Your task to perform on an android device: Go to privacy settings Image 0: 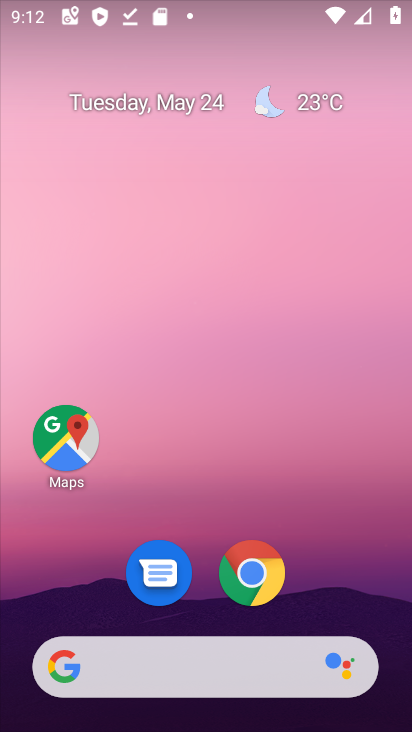
Step 0: drag from (290, 586) to (240, 190)
Your task to perform on an android device: Go to privacy settings Image 1: 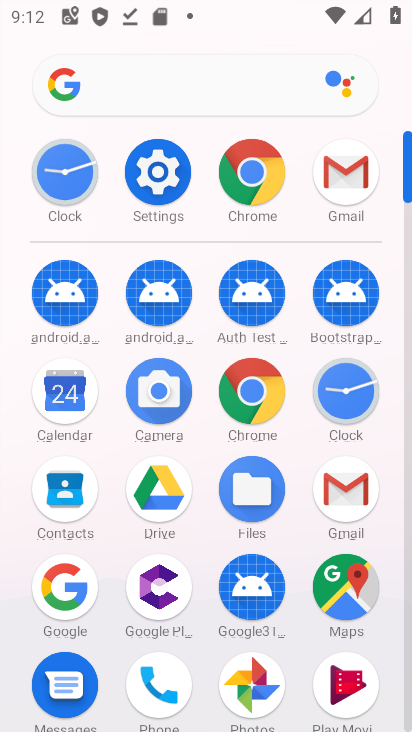
Step 1: click (154, 174)
Your task to perform on an android device: Go to privacy settings Image 2: 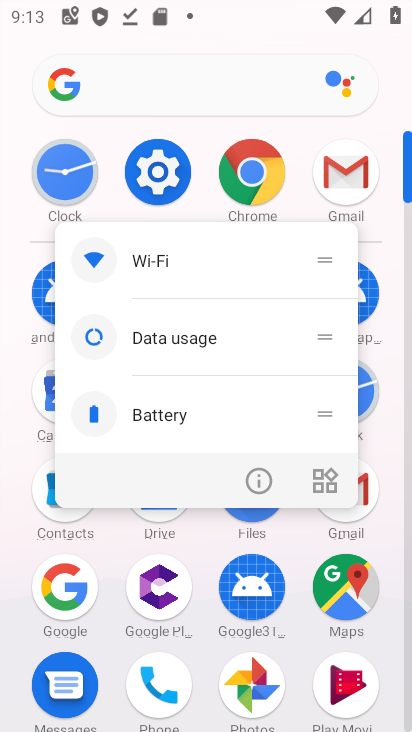
Step 2: click (172, 172)
Your task to perform on an android device: Go to privacy settings Image 3: 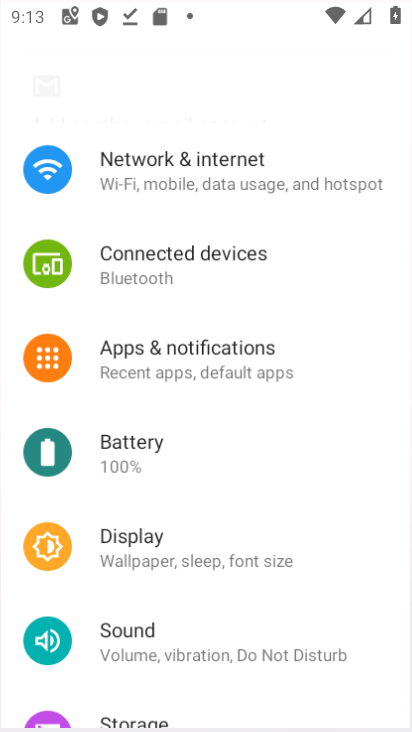
Step 3: click (170, 172)
Your task to perform on an android device: Go to privacy settings Image 4: 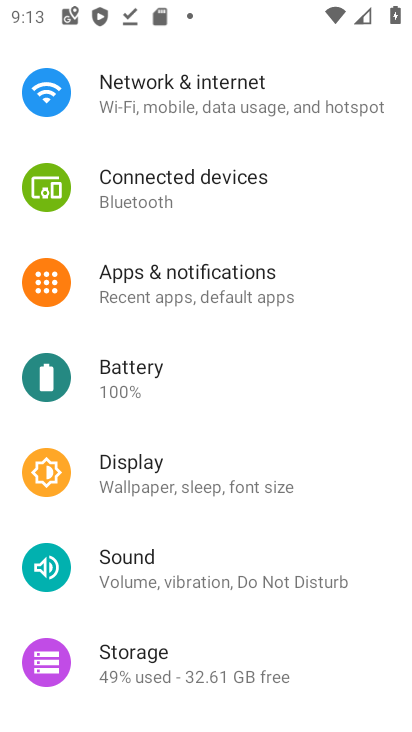
Step 4: click (170, 172)
Your task to perform on an android device: Go to privacy settings Image 5: 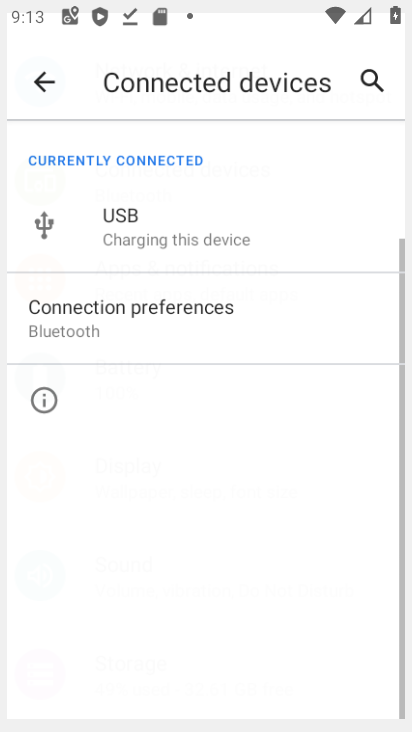
Step 5: click (170, 172)
Your task to perform on an android device: Go to privacy settings Image 6: 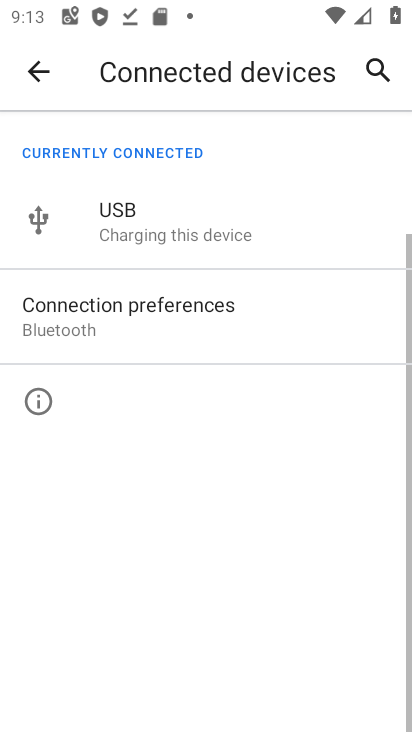
Step 6: click (20, 80)
Your task to perform on an android device: Go to privacy settings Image 7: 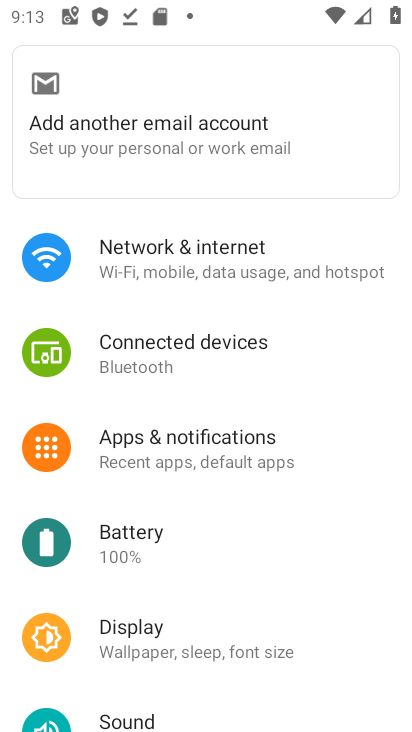
Step 7: drag from (168, 590) to (186, 388)
Your task to perform on an android device: Go to privacy settings Image 8: 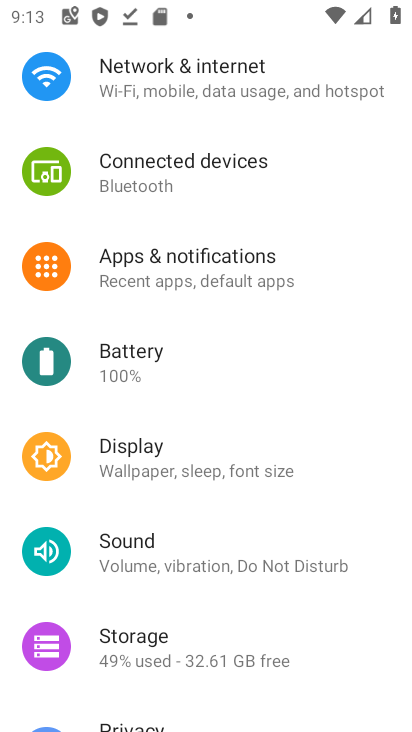
Step 8: drag from (237, 447) to (228, 110)
Your task to perform on an android device: Go to privacy settings Image 9: 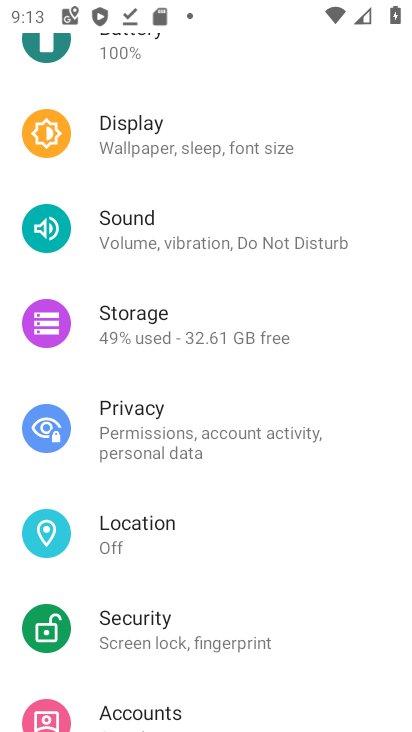
Step 9: drag from (161, 581) to (147, 172)
Your task to perform on an android device: Go to privacy settings Image 10: 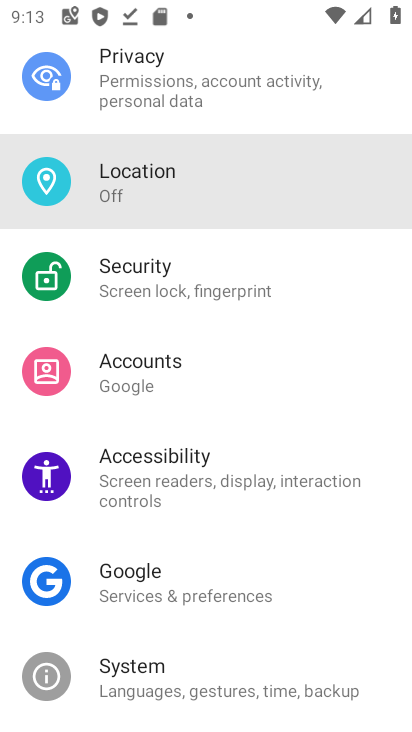
Step 10: drag from (261, 434) to (299, 0)
Your task to perform on an android device: Go to privacy settings Image 11: 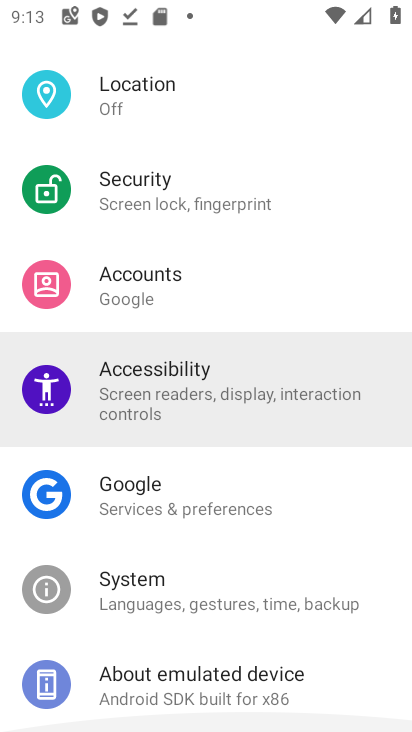
Step 11: drag from (349, 480) to (335, 268)
Your task to perform on an android device: Go to privacy settings Image 12: 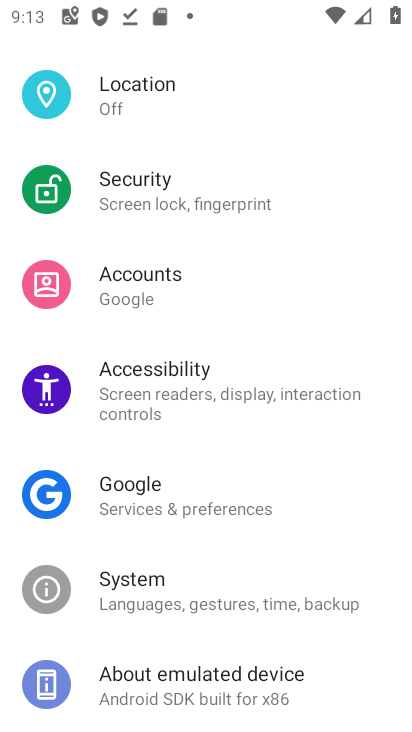
Step 12: drag from (216, 351) to (216, 237)
Your task to perform on an android device: Go to privacy settings Image 13: 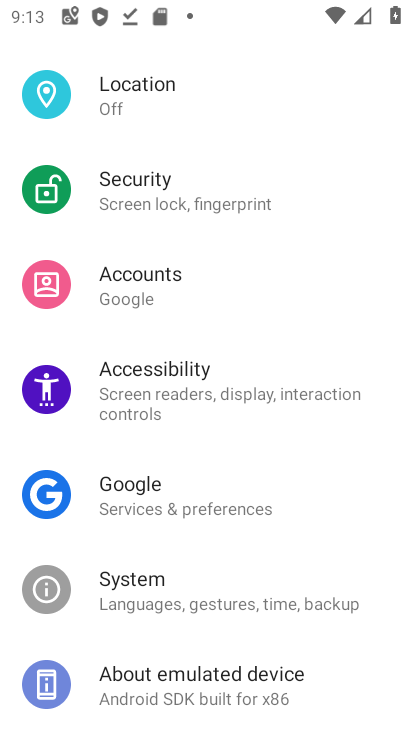
Step 13: drag from (134, 262) to (191, 627)
Your task to perform on an android device: Go to privacy settings Image 14: 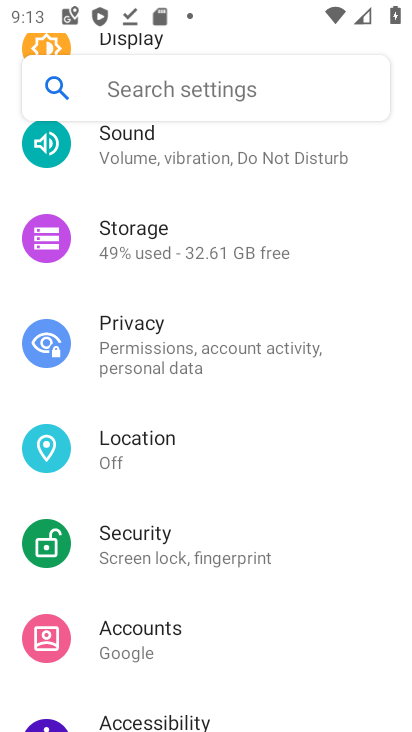
Step 14: drag from (182, 282) to (259, 599)
Your task to perform on an android device: Go to privacy settings Image 15: 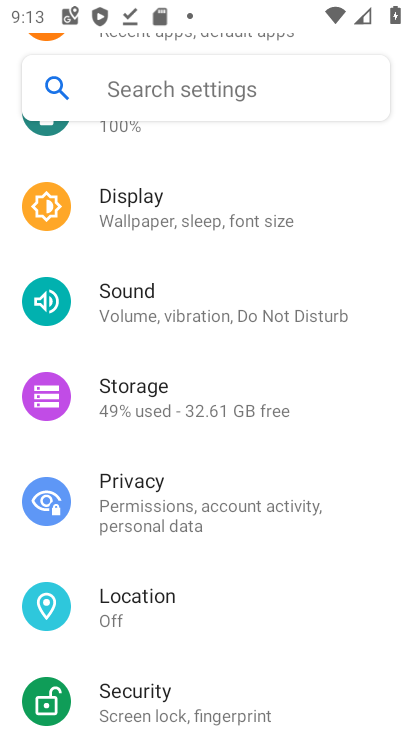
Step 15: click (142, 504)
Your task to perform on an android device: Go to privacy settings Image 16: 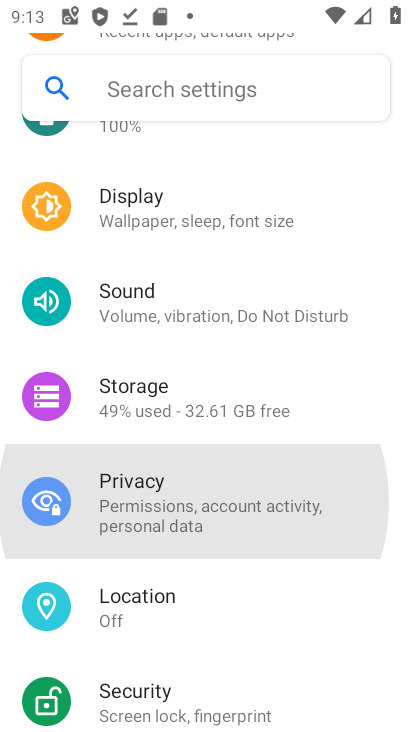
Step 16: click (146, 500)
Your task to perform on an android device: Go to privacy settings Image 17: 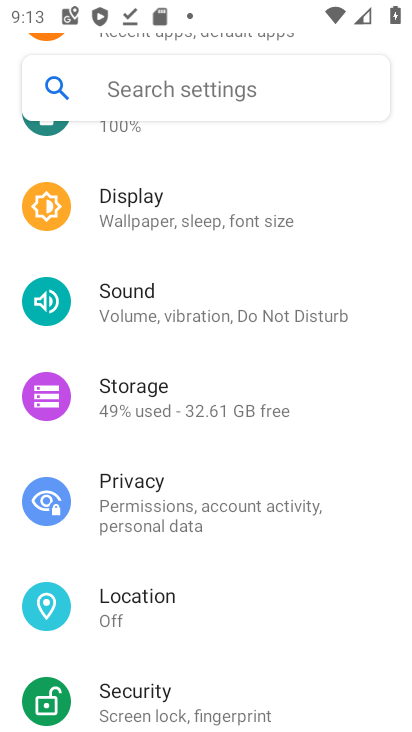
Step 17: click (147, 499)
Your task to perform on an android device: Go to privacy settings Image 18: 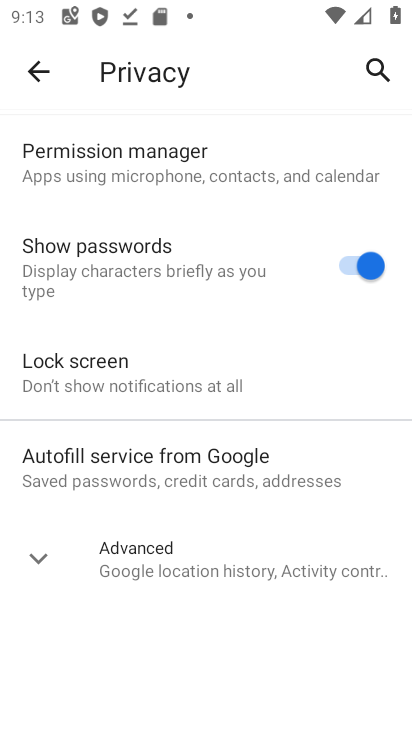
Step 18: task complete